Your task to perform on an android device: turn off notifications in google photos Image 0: 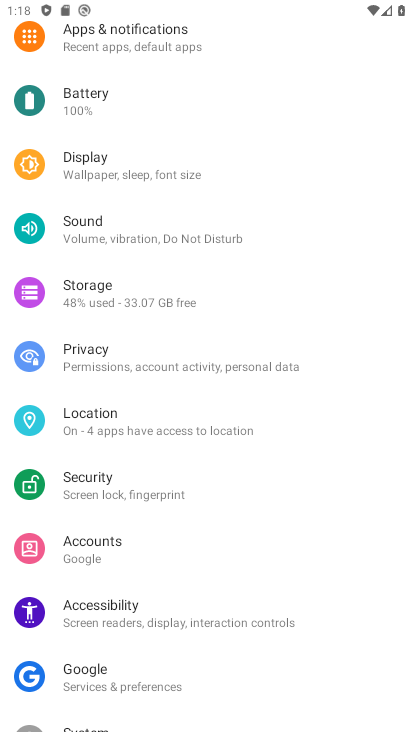
Step 0: press back button
Your task to perform on an android device: turn off notifications in google photos Image 1: 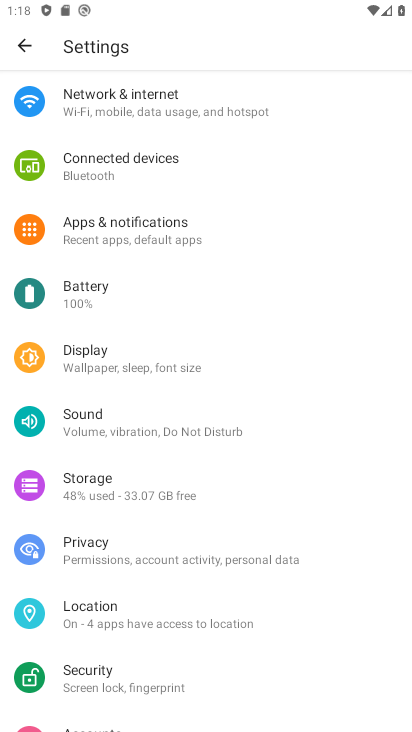
Step 1: press back button
Your task to perform on an android device: turn off notifications in google photos Image 2: 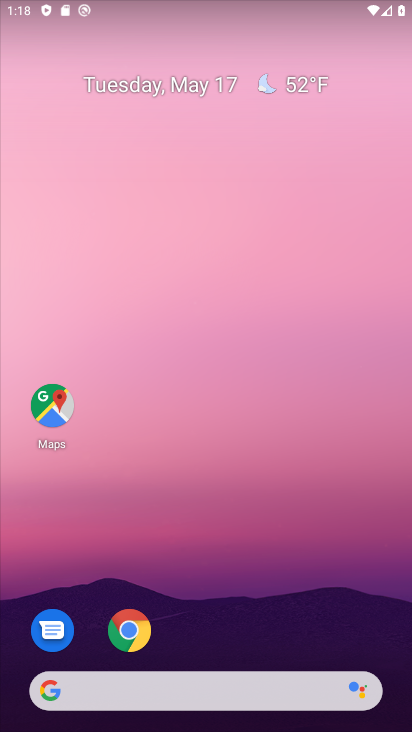
Step 2: drag from (230, 641) to (290, 35)
Your task to perform on an android device: turn off notifications in google photos Image 3: 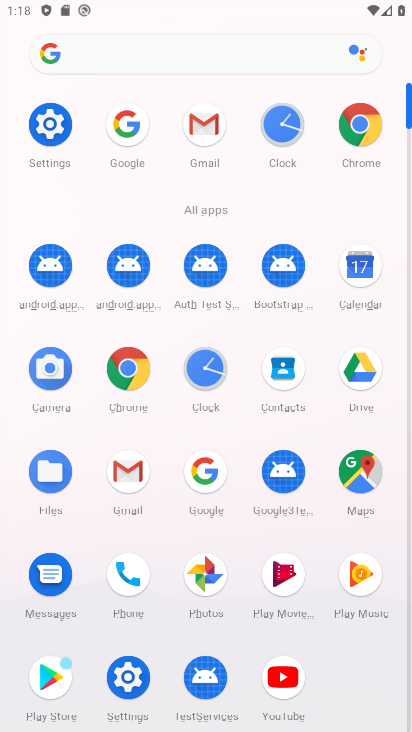
Step 3: click (205, 580)
Your task to perform on an android device: turn off notifications in google photos Image 4: 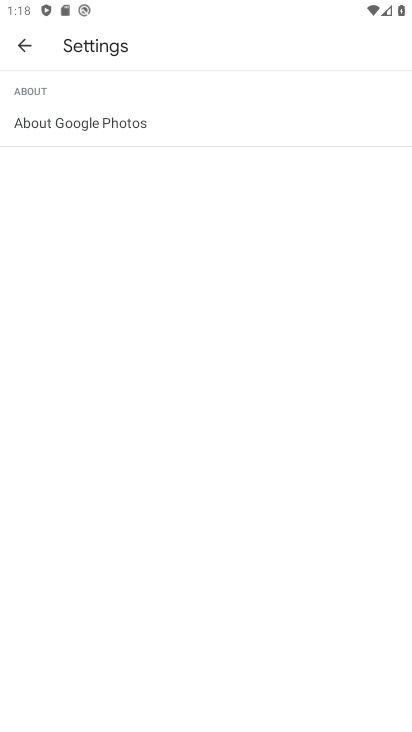
Step 4: click (32, 42)
Your task to perform on an android device: turn off notifications in google photos Image 5: 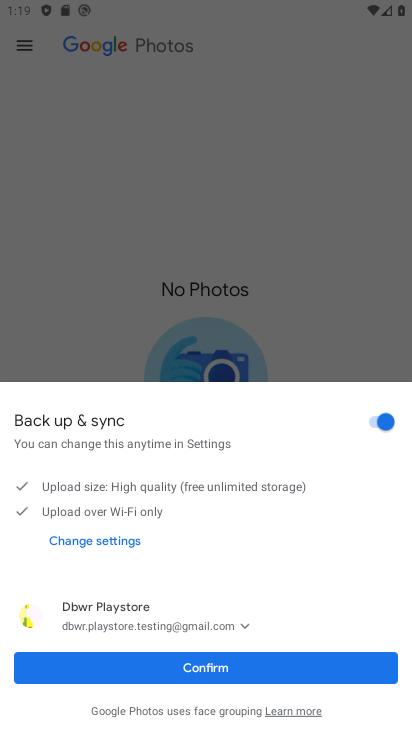
Step 5: click (261, 659)
Your task to perform on an android device: turn off notifications in google photos Image 6: 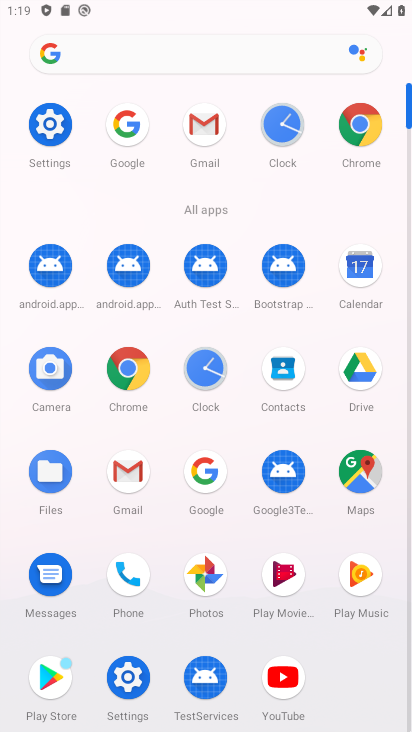
Step 6: click (216, 569)
Your task to perform on an android device: turn off notifications in google photos Image 7: 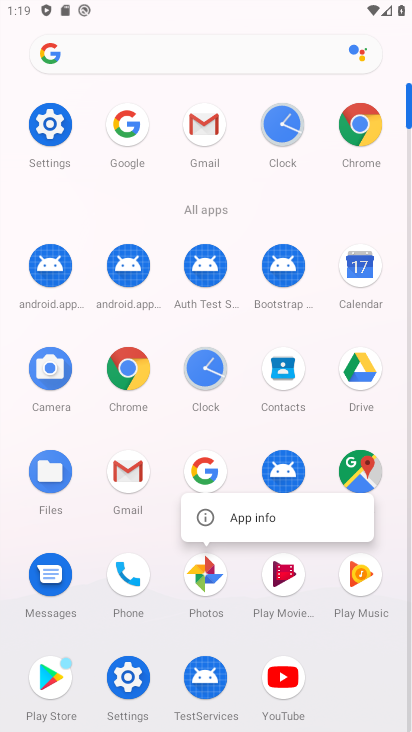
Step 7: click (198, 515)
Your task to perform on an android device: turn off notifications in google photos Image 8: 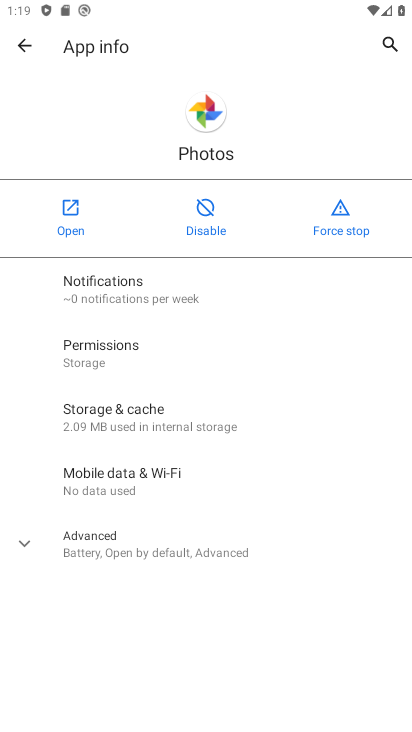
Step 8: click (114, 282)
Your task to perform on an android device: turn off notifications in google photos Image 9: 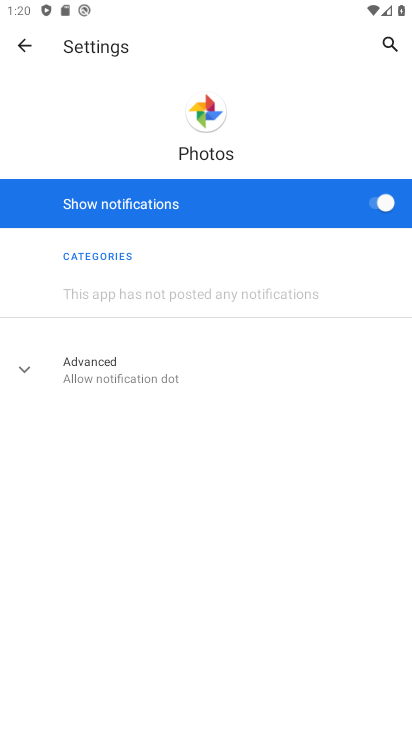
Step 9: click (386, 202)
Your task to perform on an android device: turn off notifications in google photos Image 10: 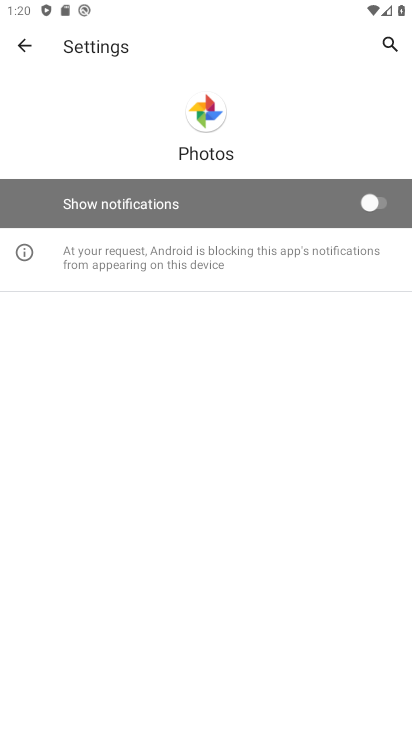
Step 10: task complete